Your task to perform on an android device: open app "Google Play Music" Image 0: 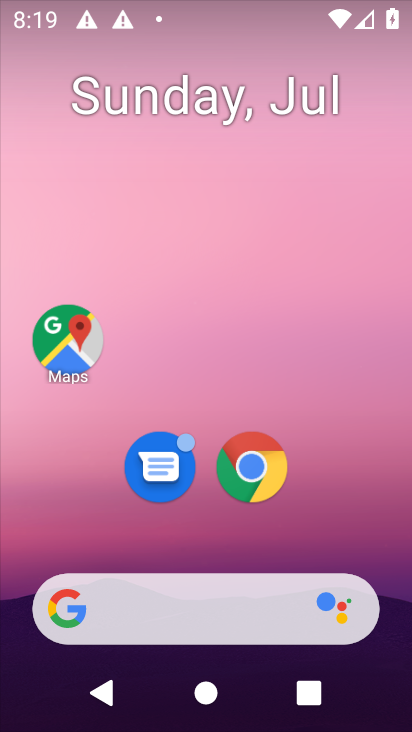
Step 0: drag from (205, 544) to (264, 96)
Your task to perform on an android device: open app "Google Play Music" Image 1: 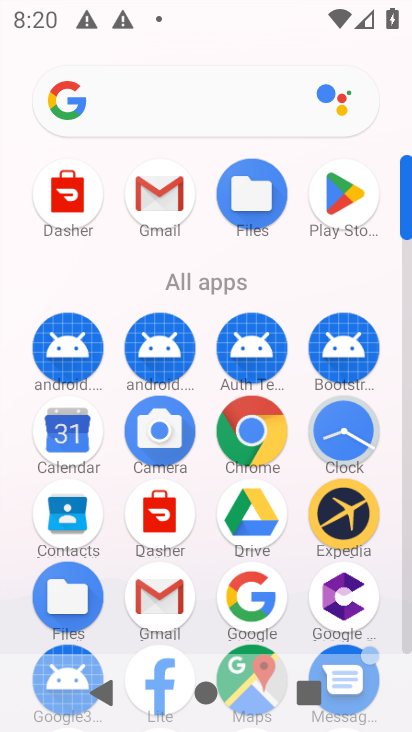
Step 1: drag from (214, 572) to (348, 35)
Your task to perform on an android device: open app "Google Play Music" Image 2: 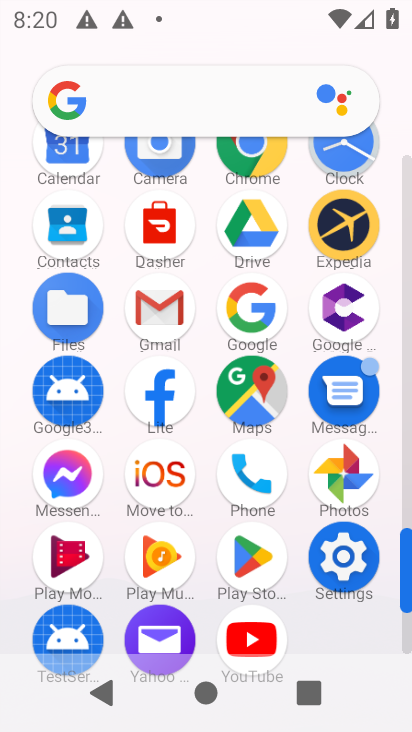
Step 2: drag from (203, 554) to (322, 222)
Your task to perform on an android device: open app "Google Play Music" Image 3: 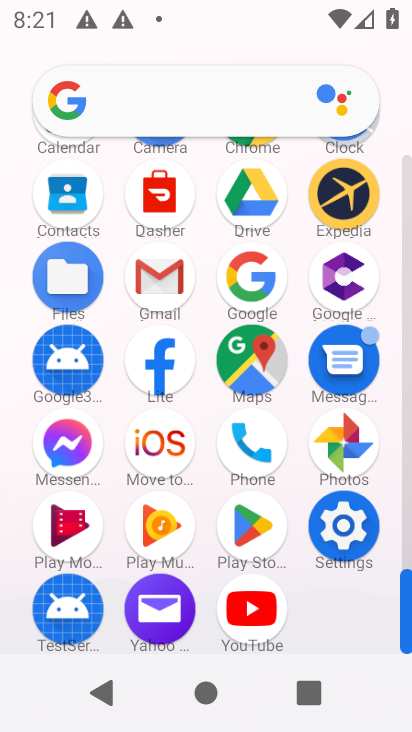
Step 3: click (245, 522)
Your task to perform on an android device: open app "Google Play Music" Image 4: 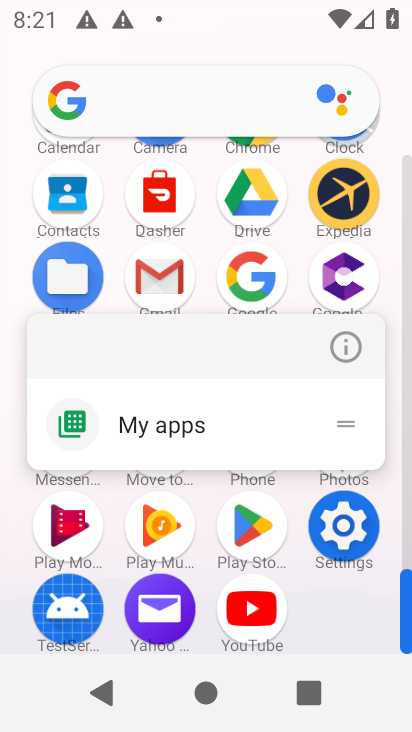
Step 4: click (336, 349)
Your task to perform on an android device: open app "Google Play Music" Image 5: 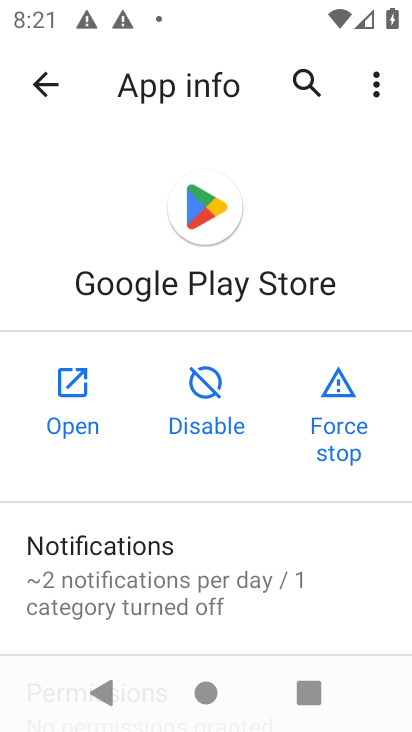
Step 5: click (62, 394)
Your task to perform on an android device: open app "Google Play Music" Image 6: 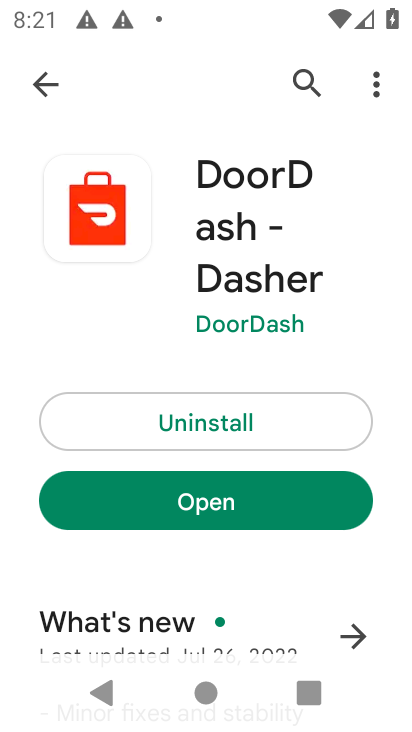
Step 6: click (296, 91)
Your task to perform on an android device: open app "Google Play Music" Image 7: 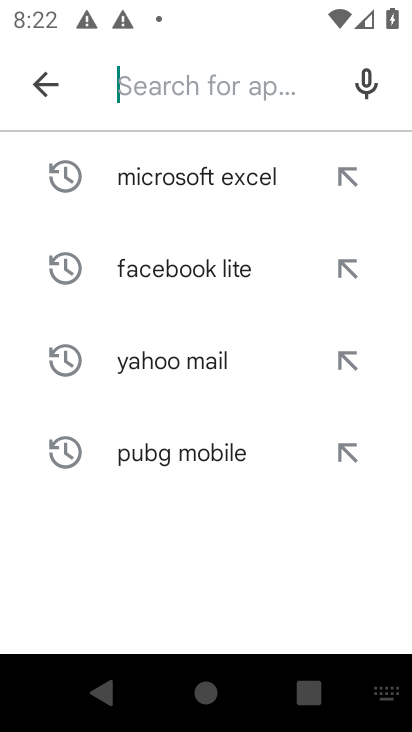
Step 7: click (168, 82)
Your task to perform on an android device: open app "Google Play Music" Image 8: 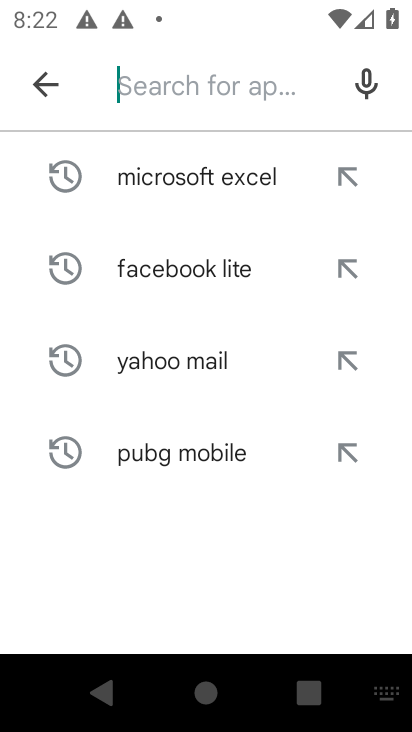
Step 8: type "Google Play Music"
Your task to perform on an android device: open app "Google Play Music" Image 9: 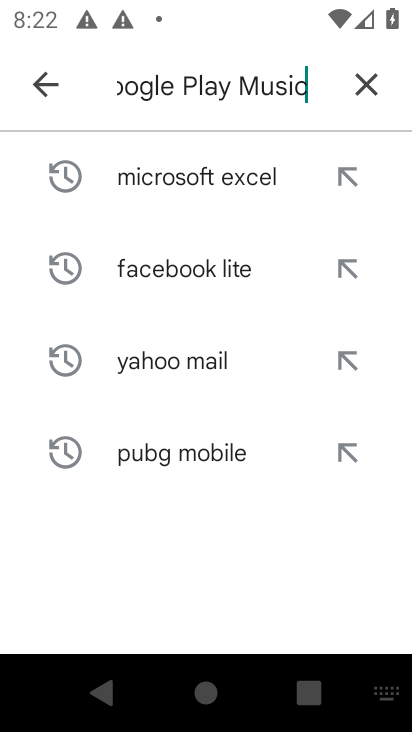
Step 9: type ""
Your task to perform on an android device: open app "Google Play Music" Image 10: 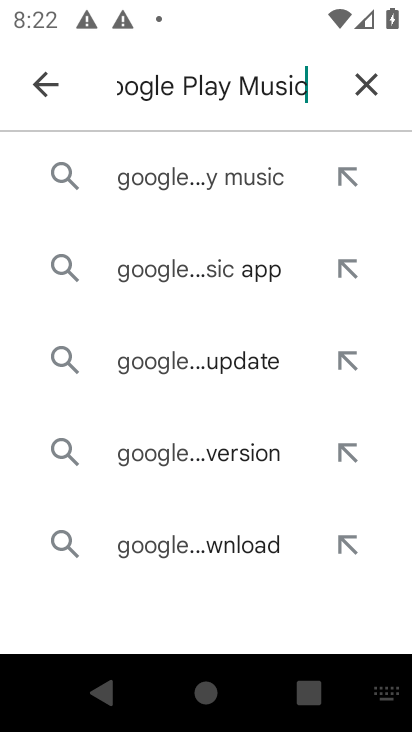
Step 10: click (152, 180)
Your task to perform on an android device: open app "Google Play Music" Image 11: 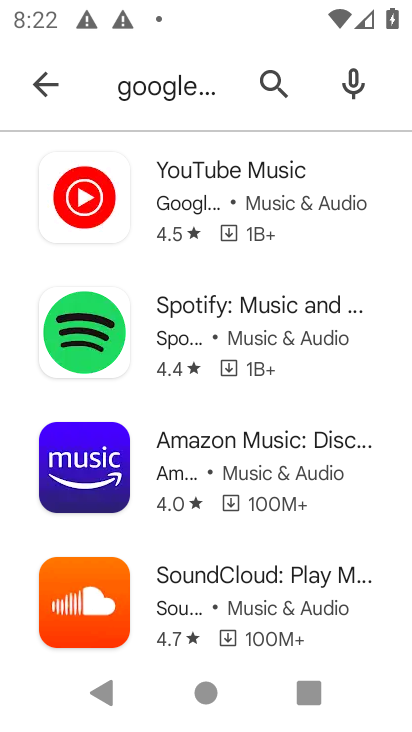
Step 11: drag from (152, 492) to (250, 689)
Your task to perform on an android device: open app "Google Play Music" Image 12: 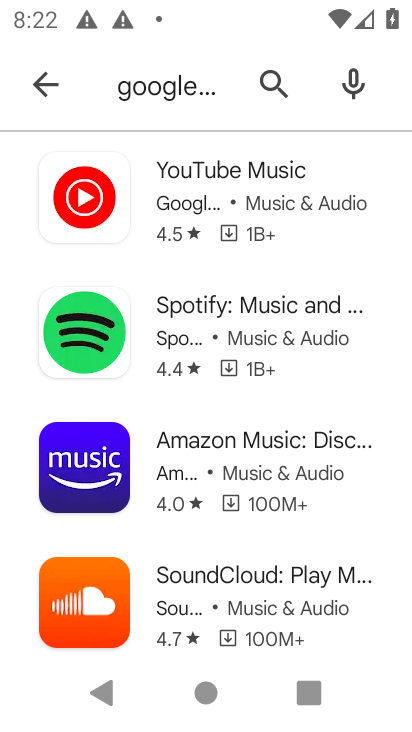
Step 12: click (267, 88)
Your task to perform on an android device: open app "Google Play Music" Image 13: 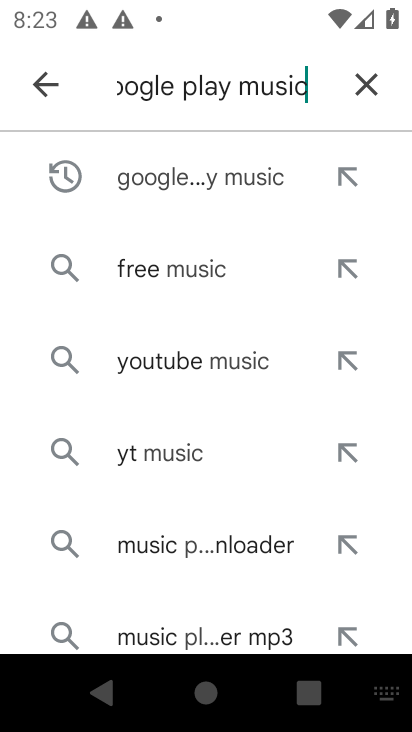
Step 13: click (179, 166)
Your task to perform on an android device: open app "Google Play Music" Image 14: 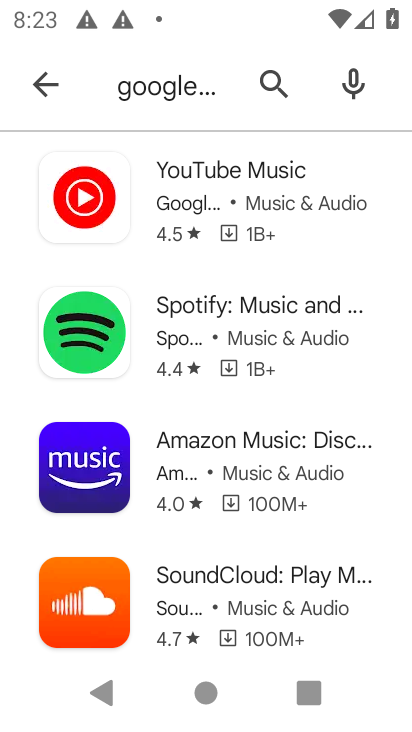
Step 14: task complete